Your task to perform on an android device: change the clock style Image 0: 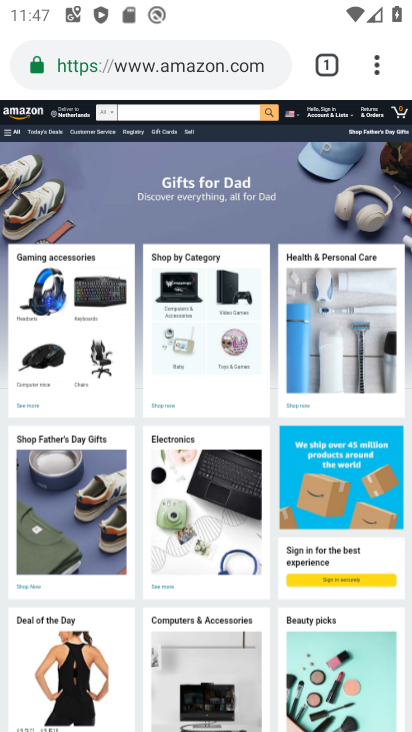
Step 0: press home button
Your task to perform on an android device: change the clock style Image 1: 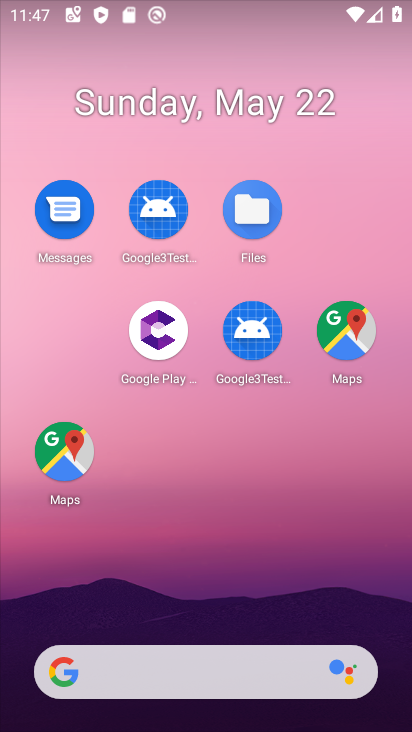
Step 1: drag from (224, 645) to (199, 59)
Your task to perform on an android device: change the clock style Image 2: 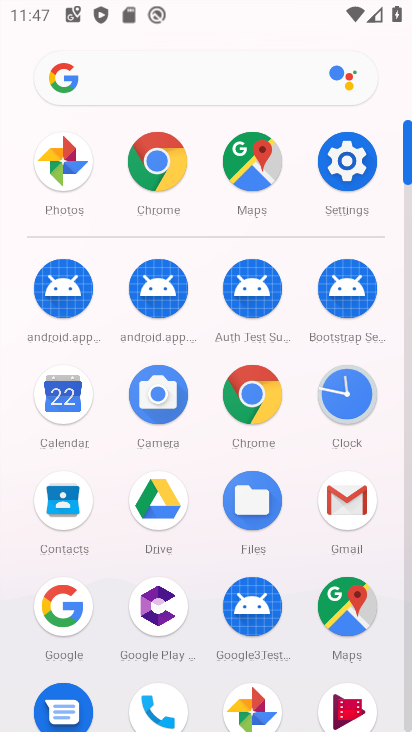
Step 2: click (343, 405)
Your task to perform on an android device: change the clock style Image 3: 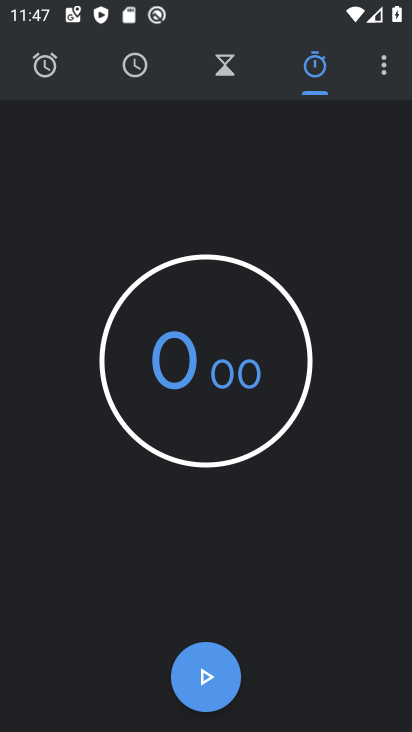
Step 3: click (389, 73)
Your task to perform on an android device: change the clock style Image 4: 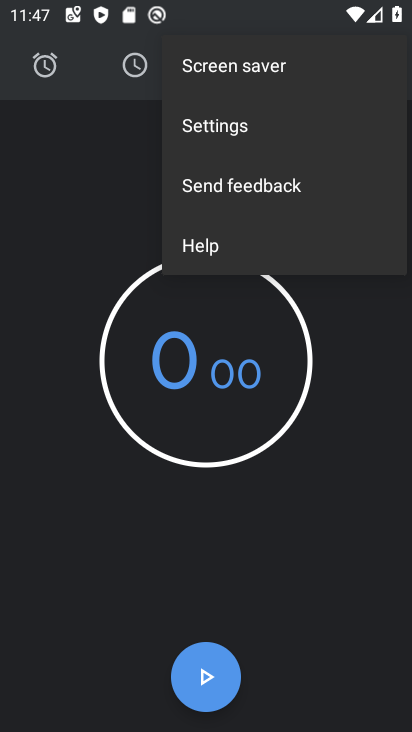
Step 4: click (235, 103)
Your task to perform on an android device: change the clock style Image 5: 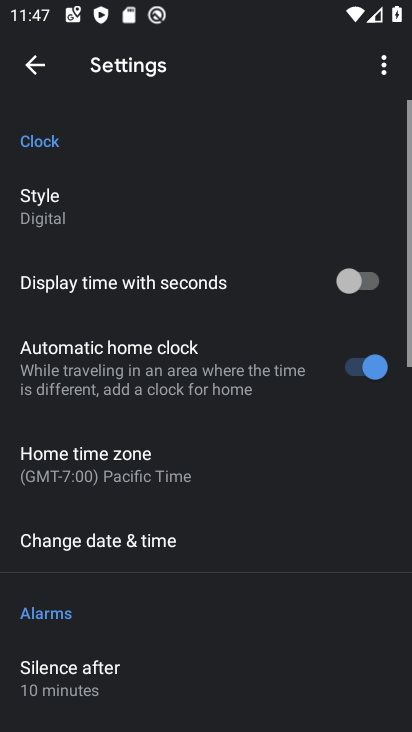
Step 5: click (66, 207)
Your task to perform on an android device: change the clock style Image 6: 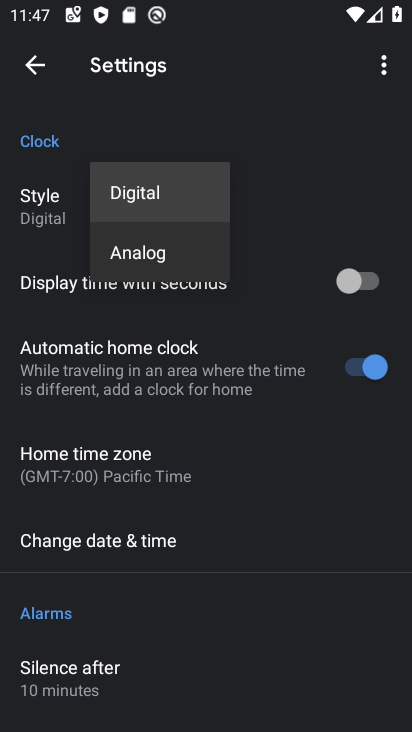
Step 6: click (148, 244)
Your task to perform on an android device: change the clock style Image 7: 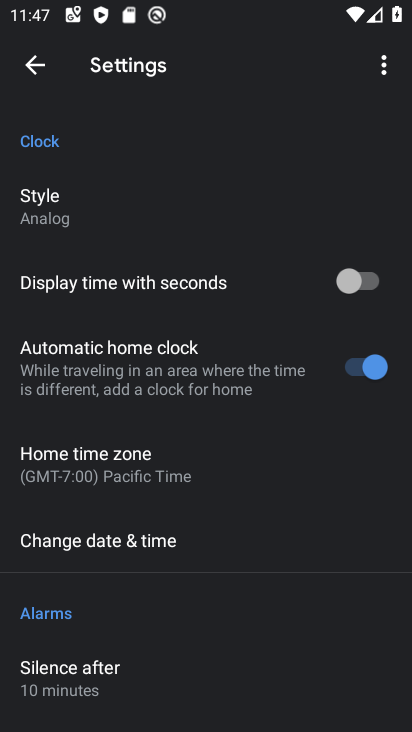
Step 7: task complete